Your task to perform on an android device: Go to wifi settings Image 0: 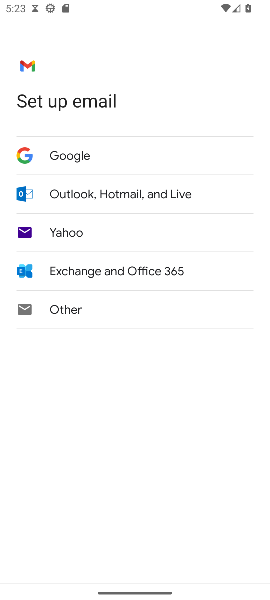
Step 0: press home button
Your task to perform on an android device: Go to wifi settings Image 1: 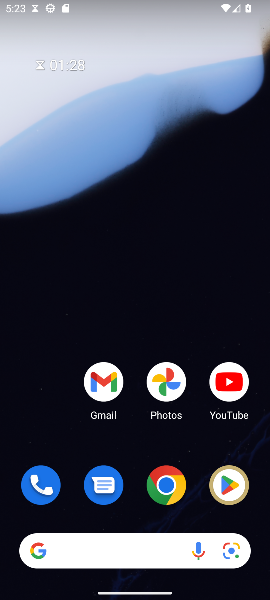
Step 1: drag from (145, 497) to (210, 3)
Your task to perform on an android device: Go to wifi settings Image 2: 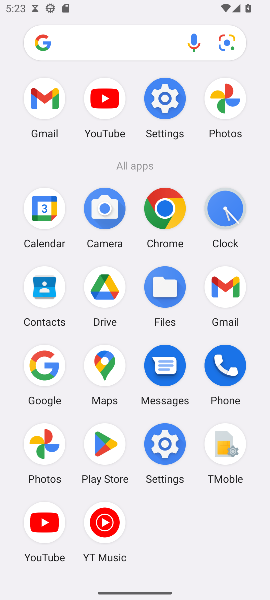
Step 2: click (171, 118)
Your task to perform on an android device: Go to wifi settings Image 3: 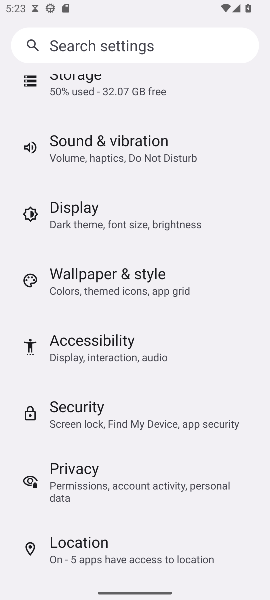
Step 3: drag from (130, 110) to (109, 403)
Your task to perform on an android device: Go to wifi settings Image 4: 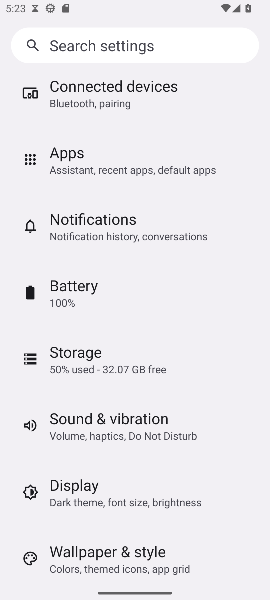
Step 4: drag from (102, 135) to (104, 436)
Your task to perform on an android device: Go to wifi settings Image 5: 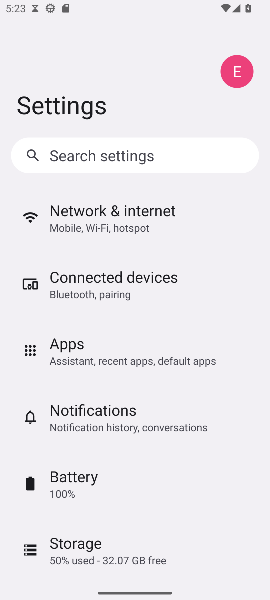
Step 5: click (104, 222)
Your task to perform on an android device: Go to wifi settings Image 6: 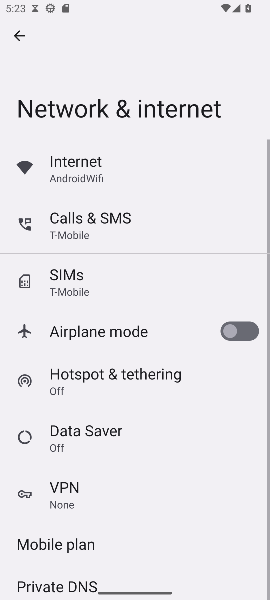
Step 6: click (78, 170)
Your task to perform on an android device: Go to wifi settings Image 7: 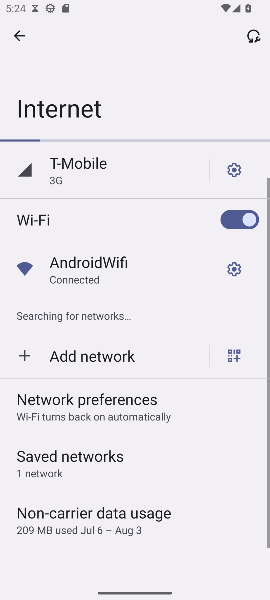
Step 7: task complete